Your task to perform on an android device: Search for usb-a on amazon.com, select the first entry, add it to the cart, then select checkout. Image 0: 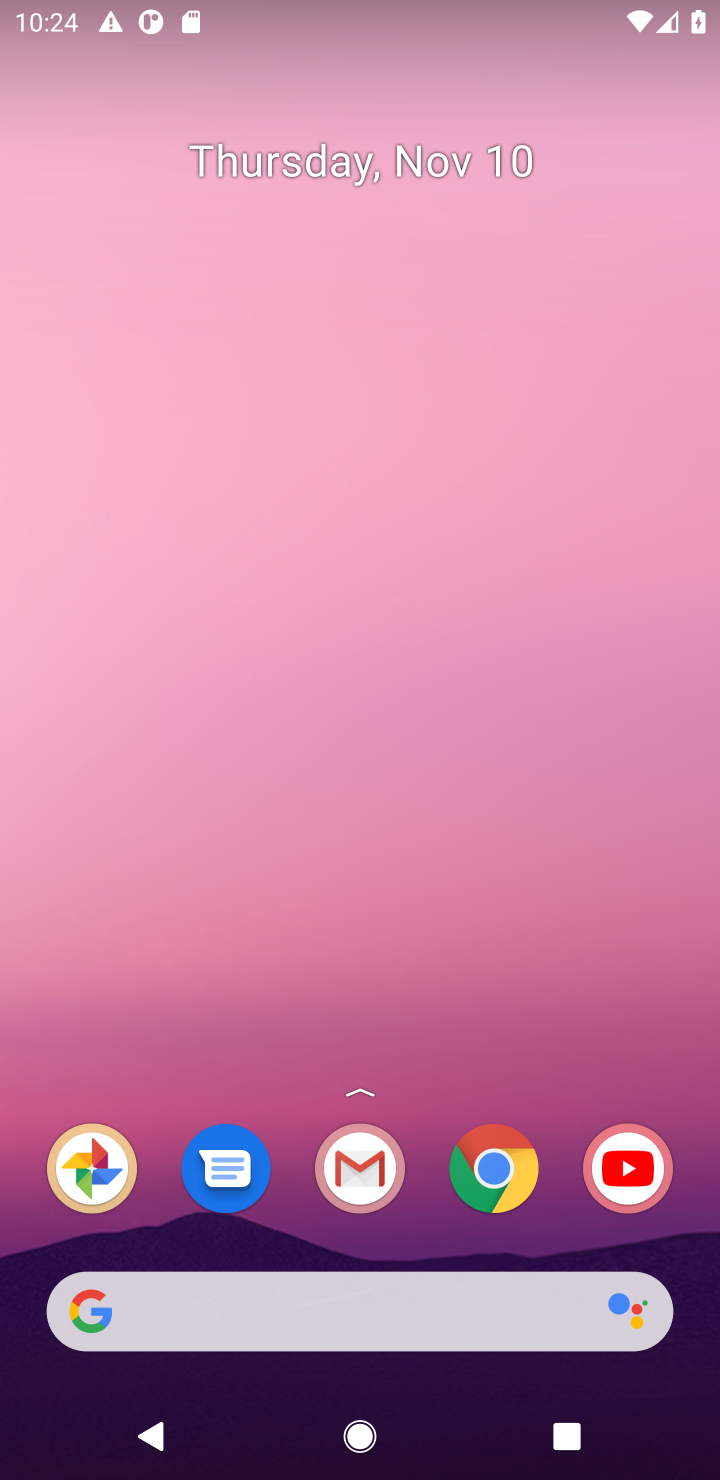
Step 0: click (482, 1191)
Your task to perform on an android device: Search for usb-a on amazon.com, select the first entry, add it to the cart, then select checkout. Image 1: 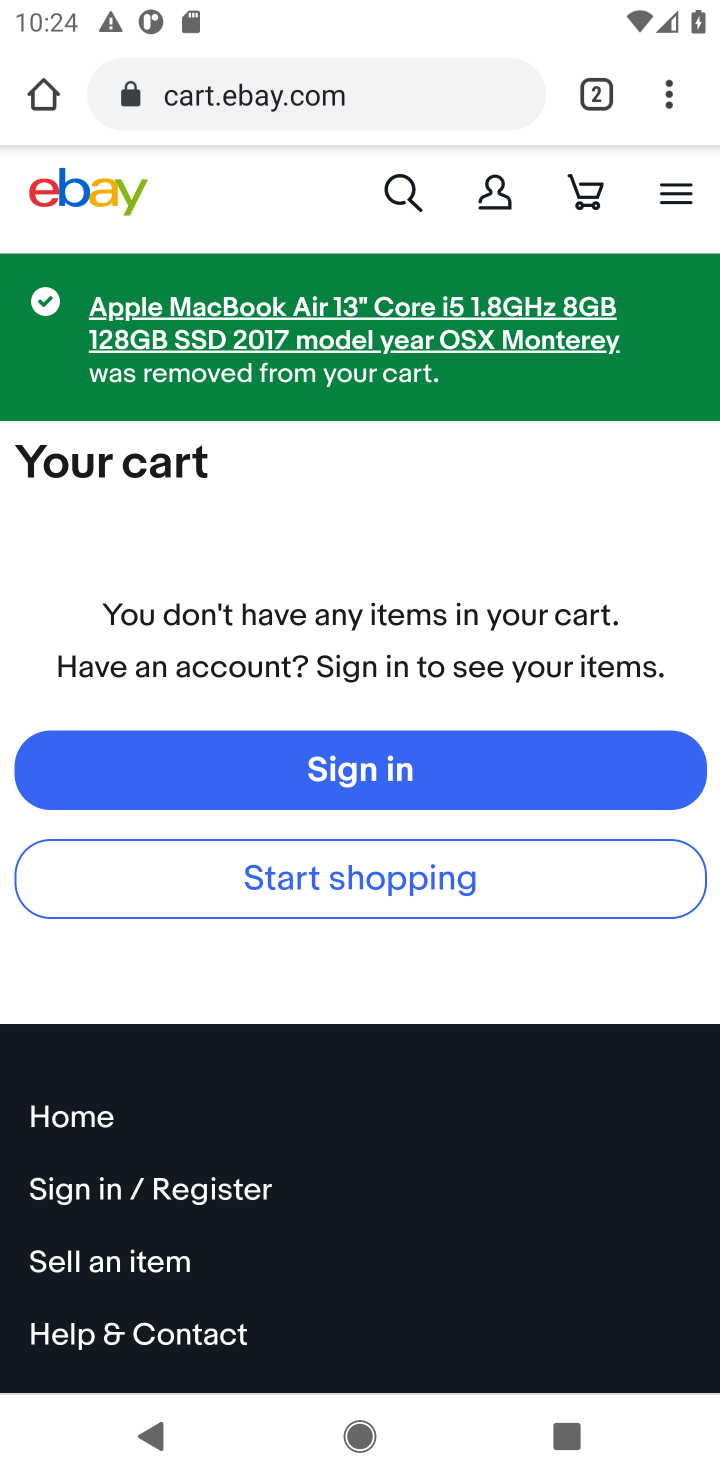
Step 1: click (316, 120)
Your task to perform on an android device: Search for usb-a on amazon.com, select the first entry, add it to the cart, then select checkout. Image 2: 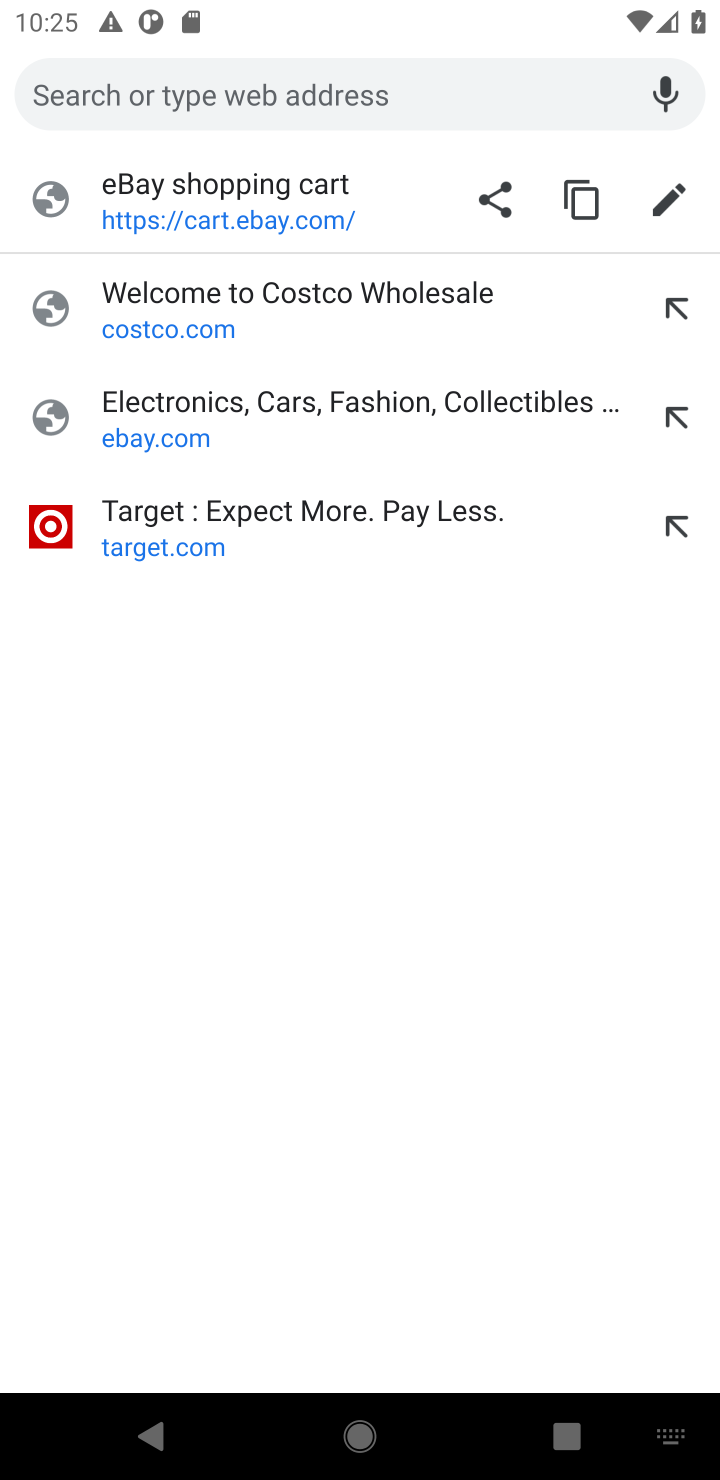
Step 2: type "amazon.com"
Your task to perform on an android device: Search for usb-a on amazon.com, select the first entry, add it to the cart, then select checkout. Image 3: 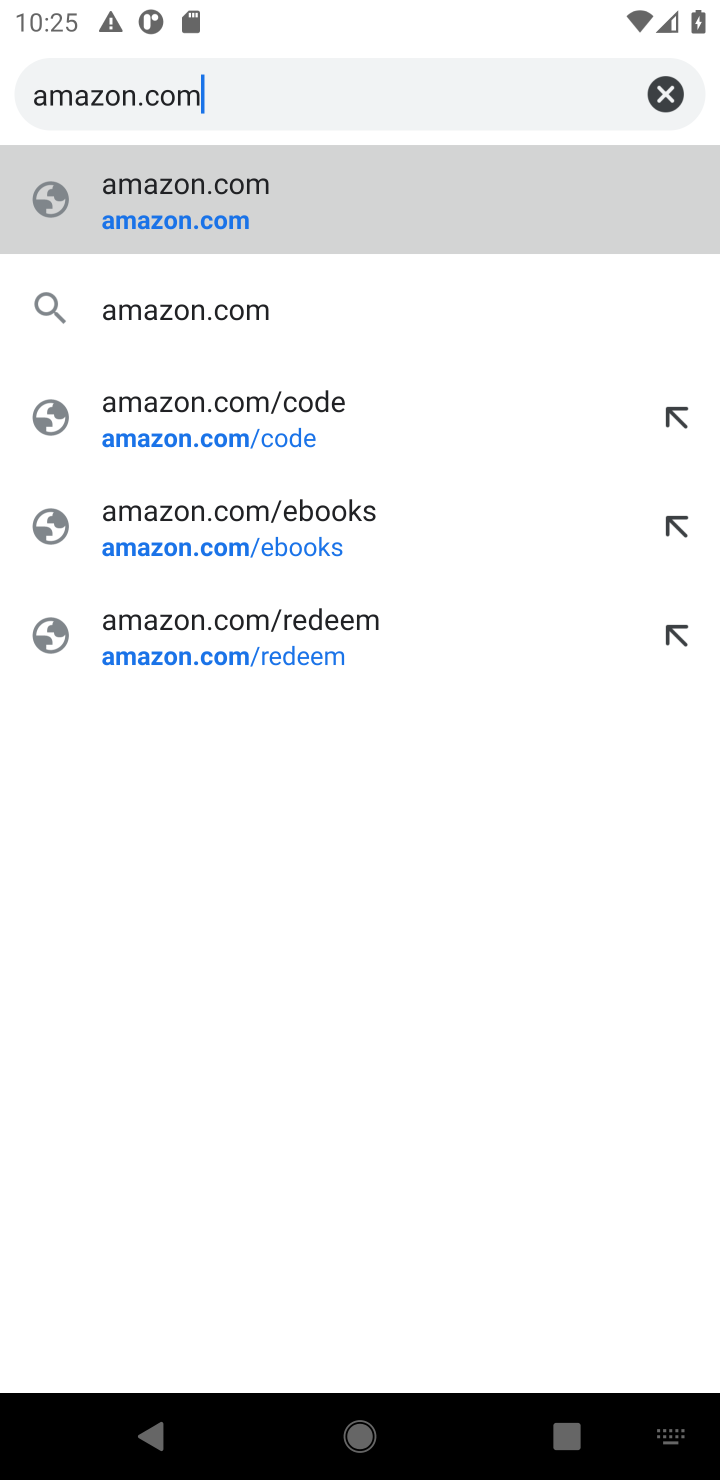
Step 3: click (150, 301)
Your task to perform on an android device: Search for usb-a on amazon.com, select the first entry, add it to the cart, then select checkout. Image 4: 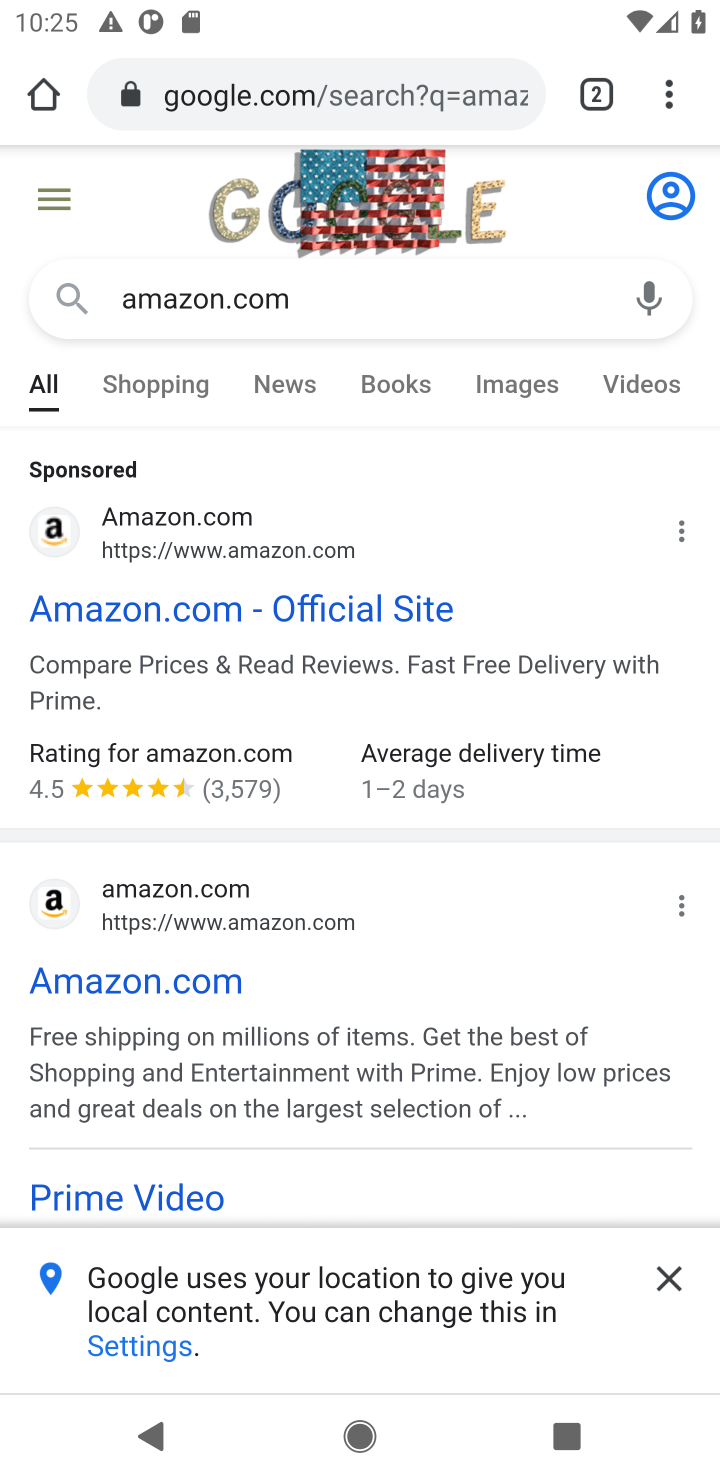
Step 4: drag from (235, 855) to (237, 505)
Your task to perform on an android device: Search for usb-a on amazon.com, select the first entry, add it to the cart, then select checkout. Image 5: 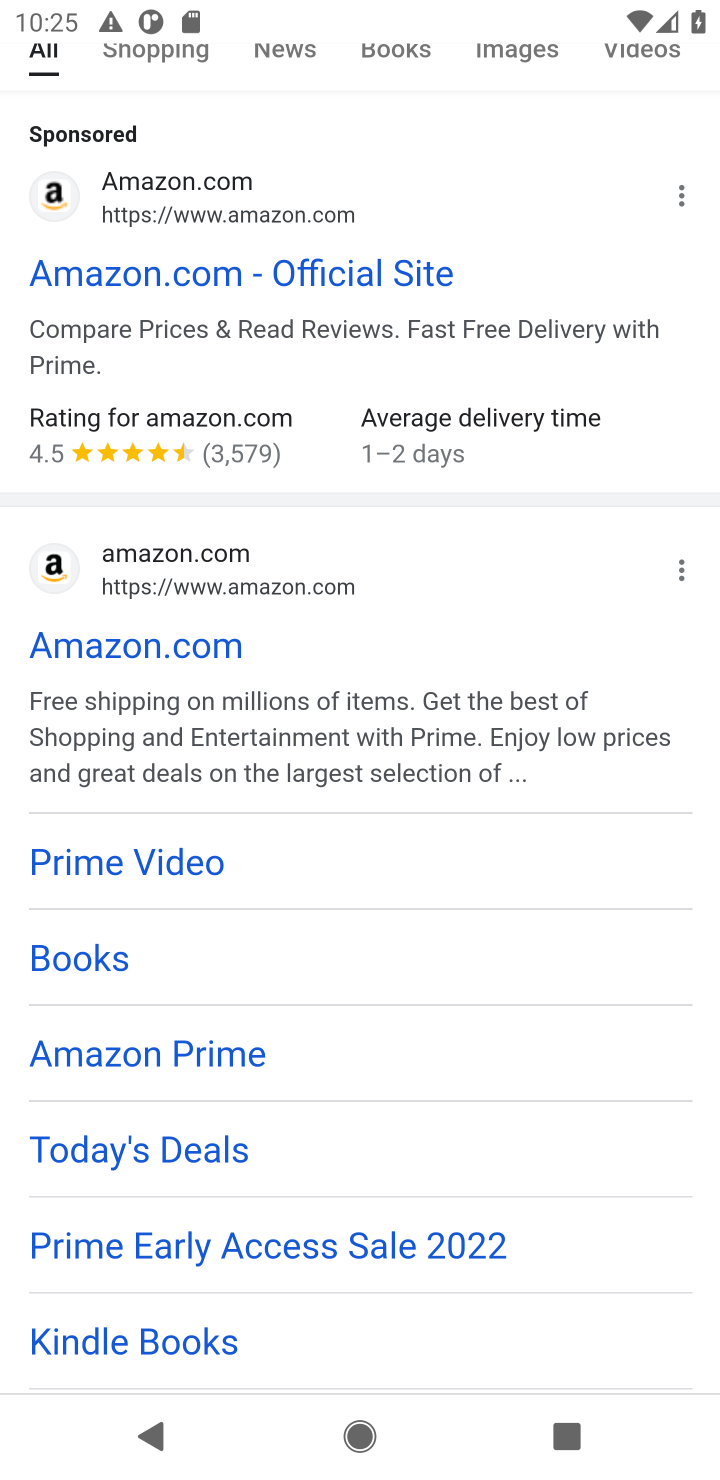
Step 5: click (135, 658)
Your task to perform on an android device: Search for usb-a on amazon.com, select the first entry, add it to the cart, then select checkout. Image 6: 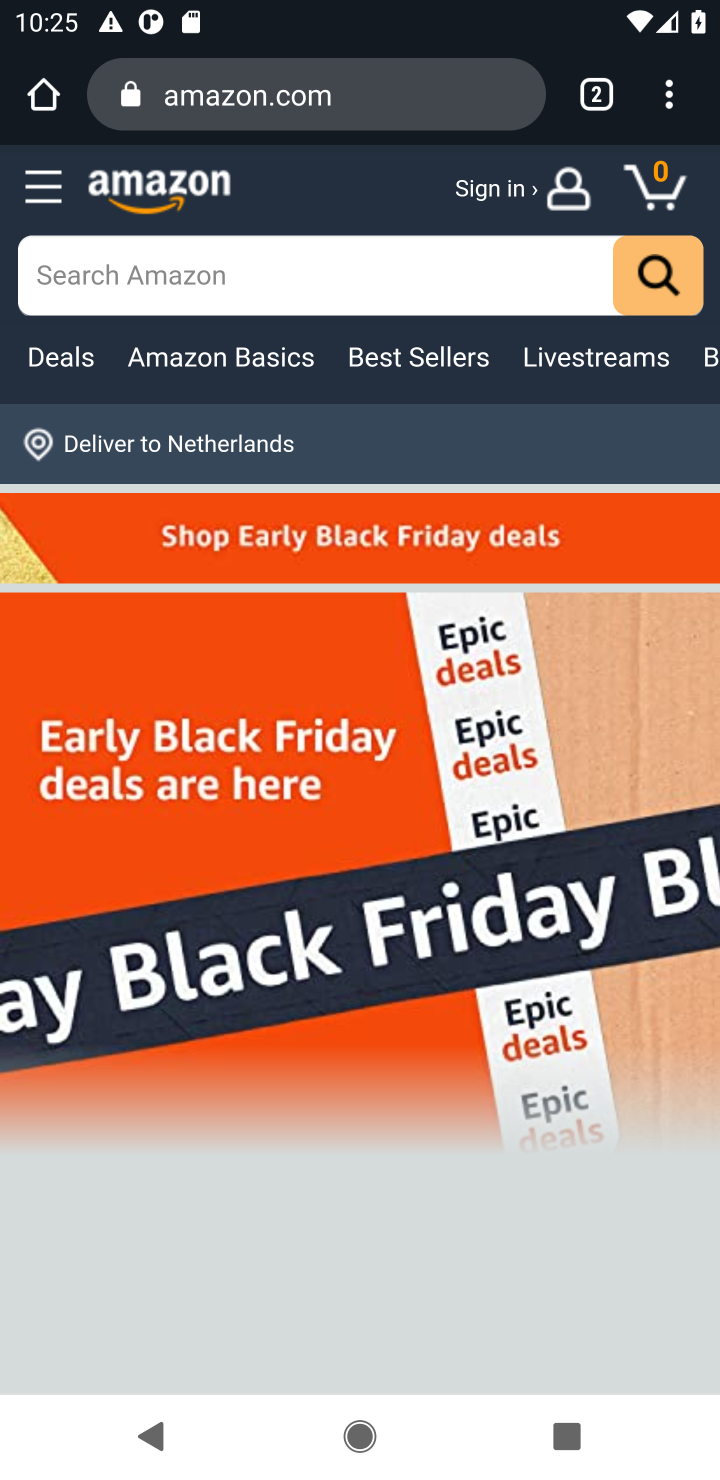
Step 6: click (249, 298)
Your task to perform on an android device: Search for usb-a on amazon.com, select the first entry, add it to the cart, then select checkout. Image 7: 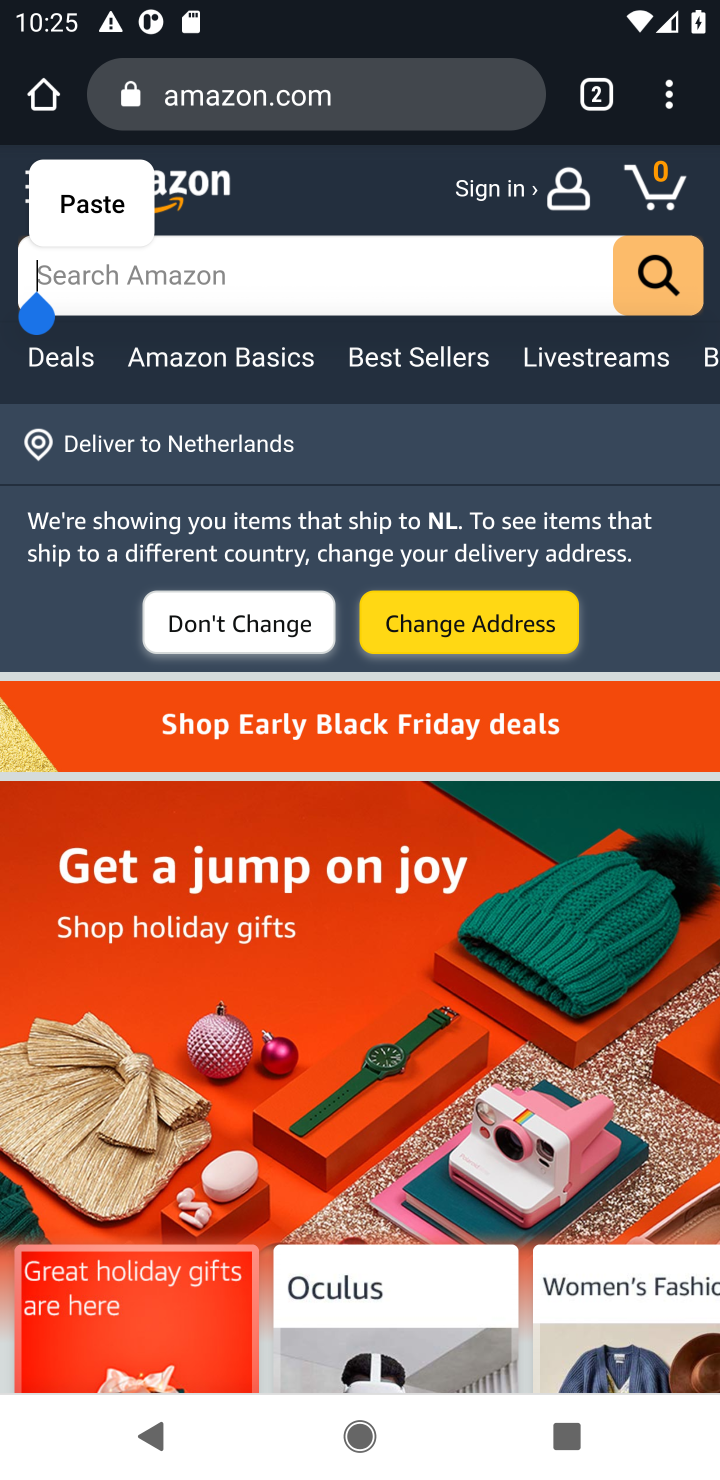
Step 7: type "usb-a "
Your task to perform on an android device: Search for usb-a on amazon.com, select the first entry, add it to the cart, then select checkout. Image 8: 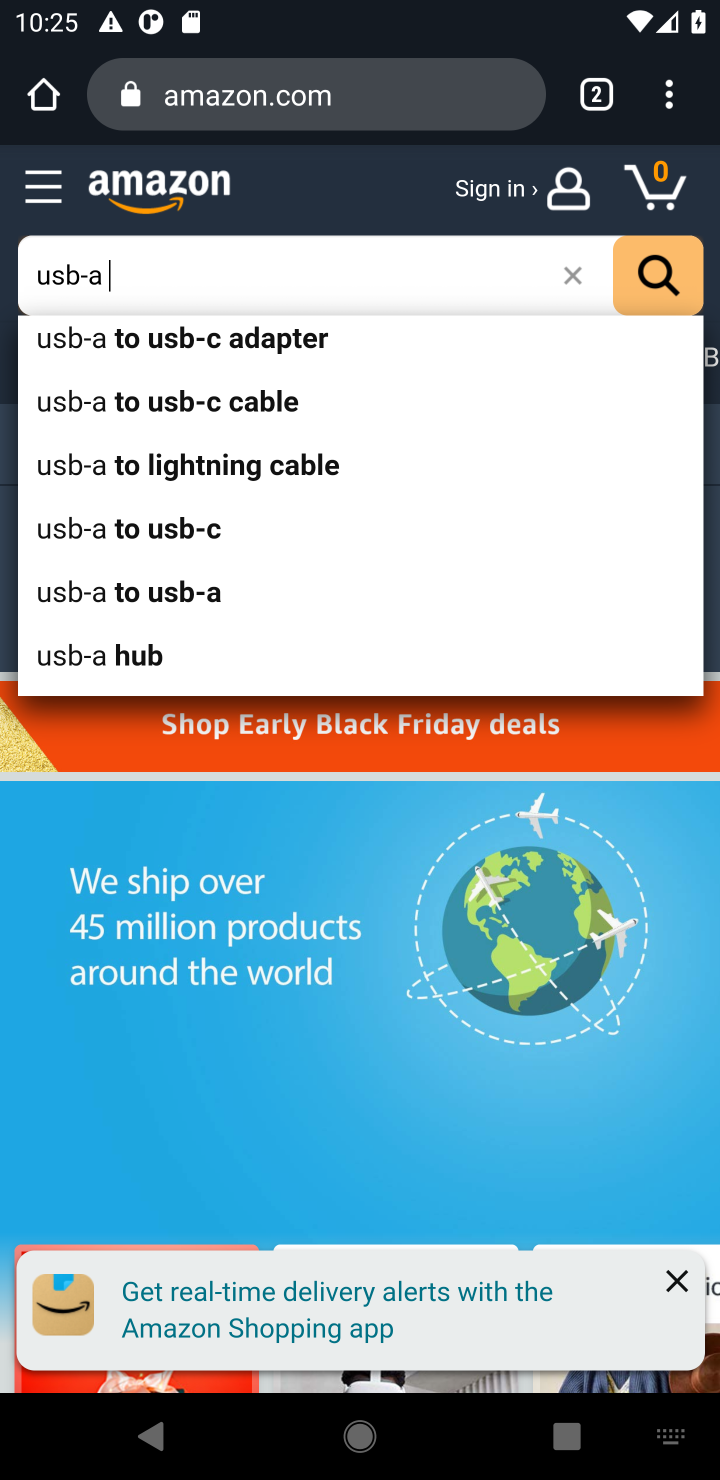
Step 8: click (676, 272)
Your task to perform on an android device: Search for usb-a on amazon.com, select the first entry, add it to the cart, then select checkout. Image 9: 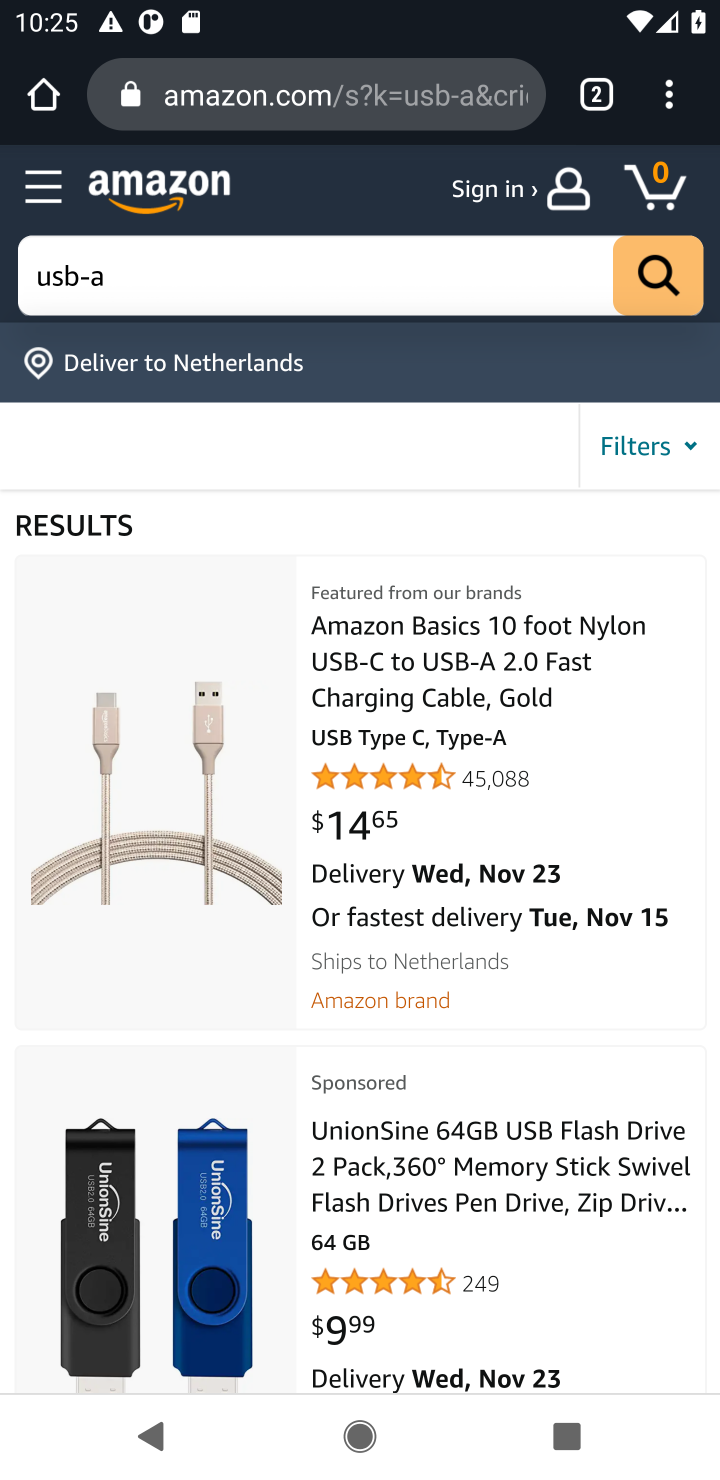
Step 9: click (112, 780)
Your task to perform on an android device: Search for usb-a on amazon.com, select the first entry, add it to the cart, then select checkout. Image 10: 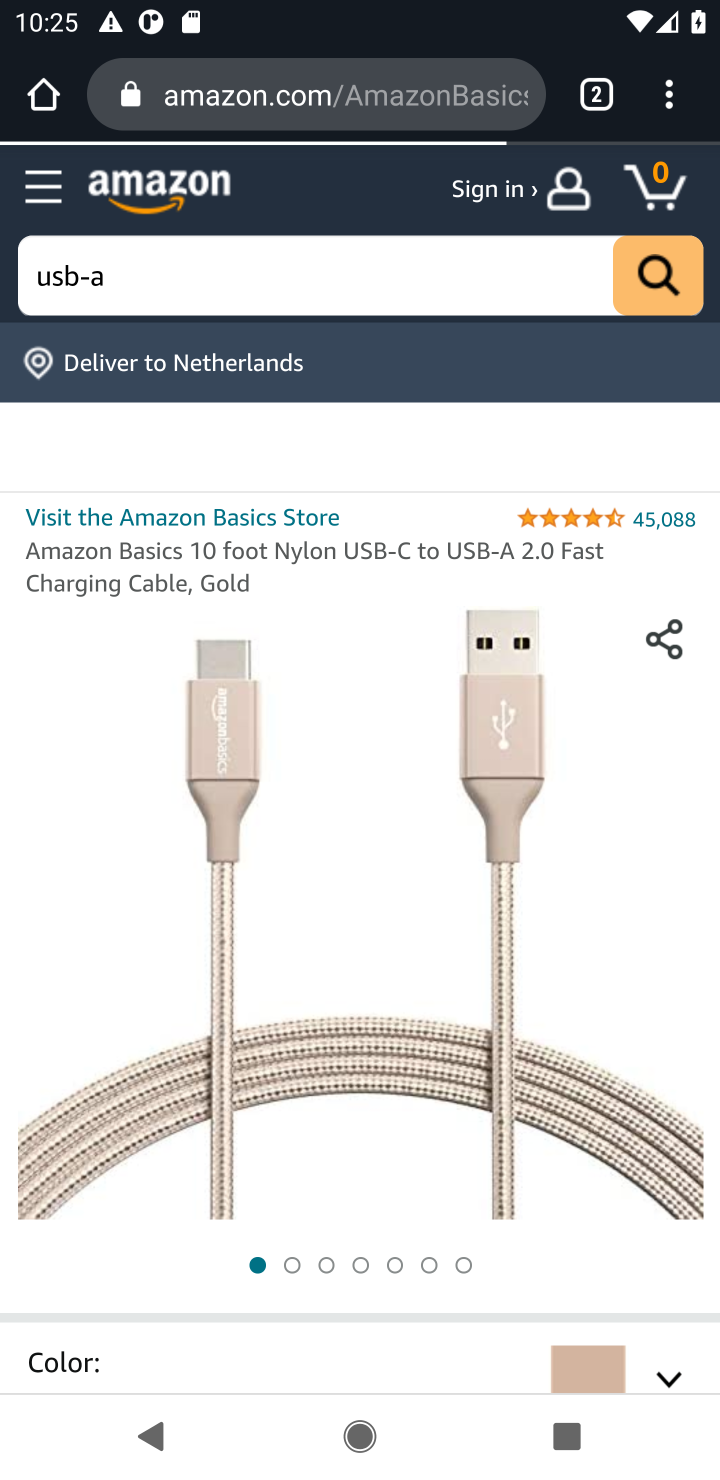
Step 10: drag from (338, 861) to (343, 398)
Your task to perform on an android device: Search for usb-a on amazon.com, select the first entry, add it to the cart, then select checkout. Image 11: 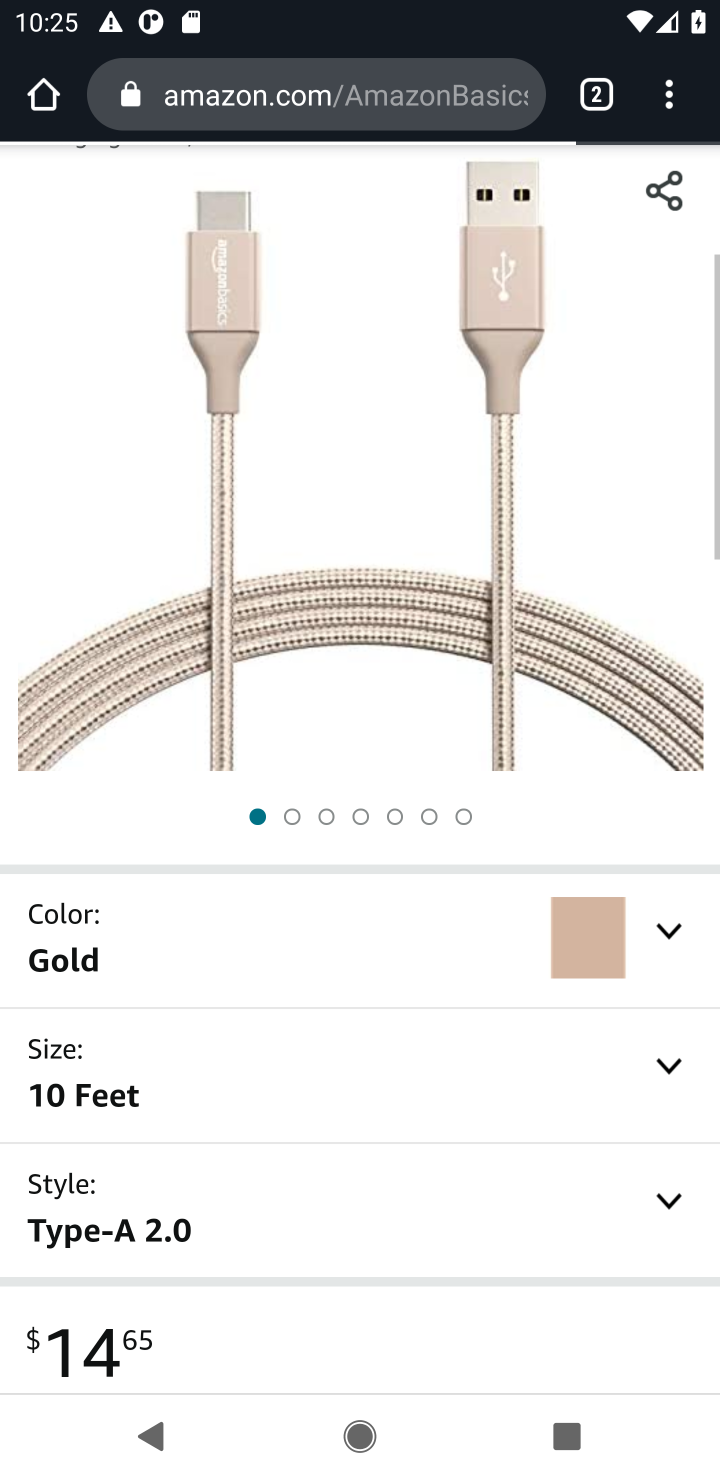
Step 11: drag from (386, 996) to (348, 387)
Your task to perform on an android device: Search for usb-a on amazon.com, select the first entry, add it to the cart, then select checkout. Image 12: 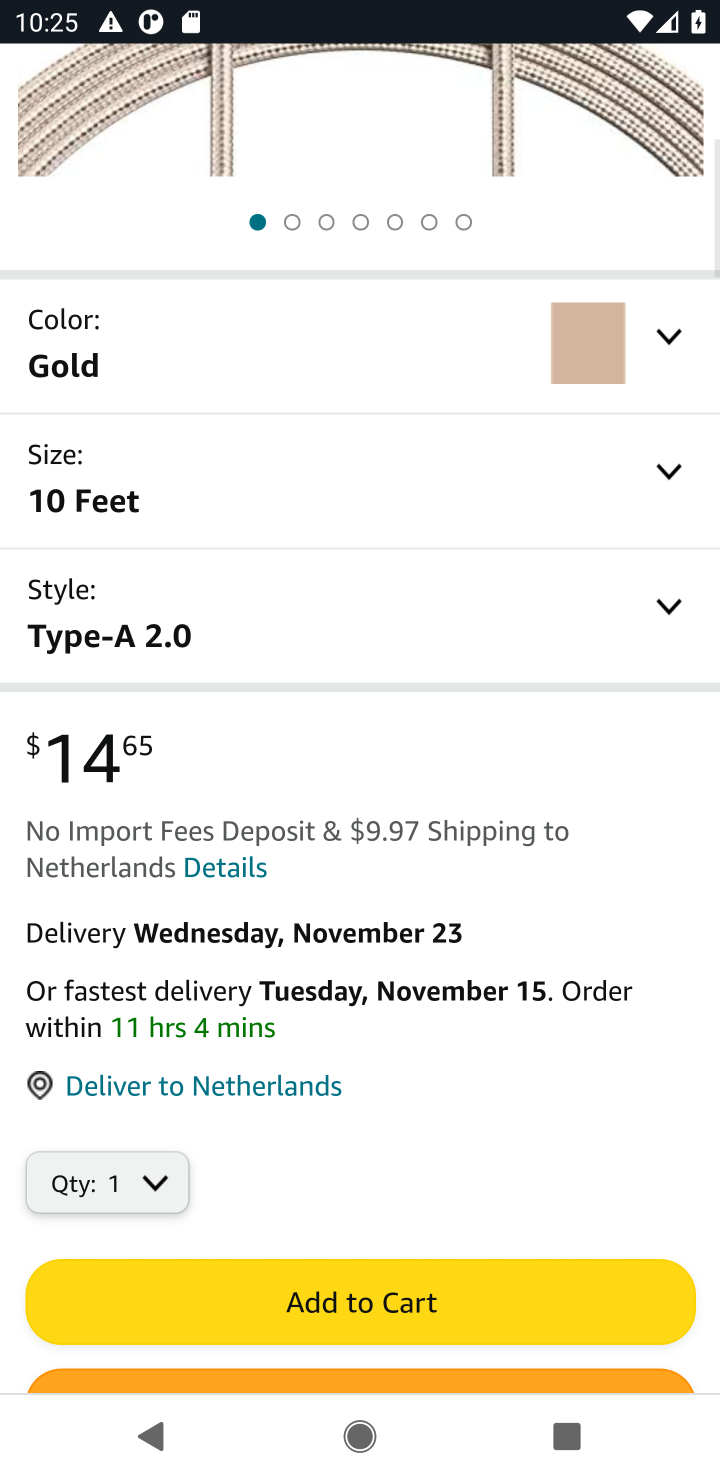
Step 12: drag from (373, 1024) to (283, 506)
Your task to perform on an android device: Search for usb-a on amazon.com, select the first entry, add it to the cart, then select checkout. Image 13: 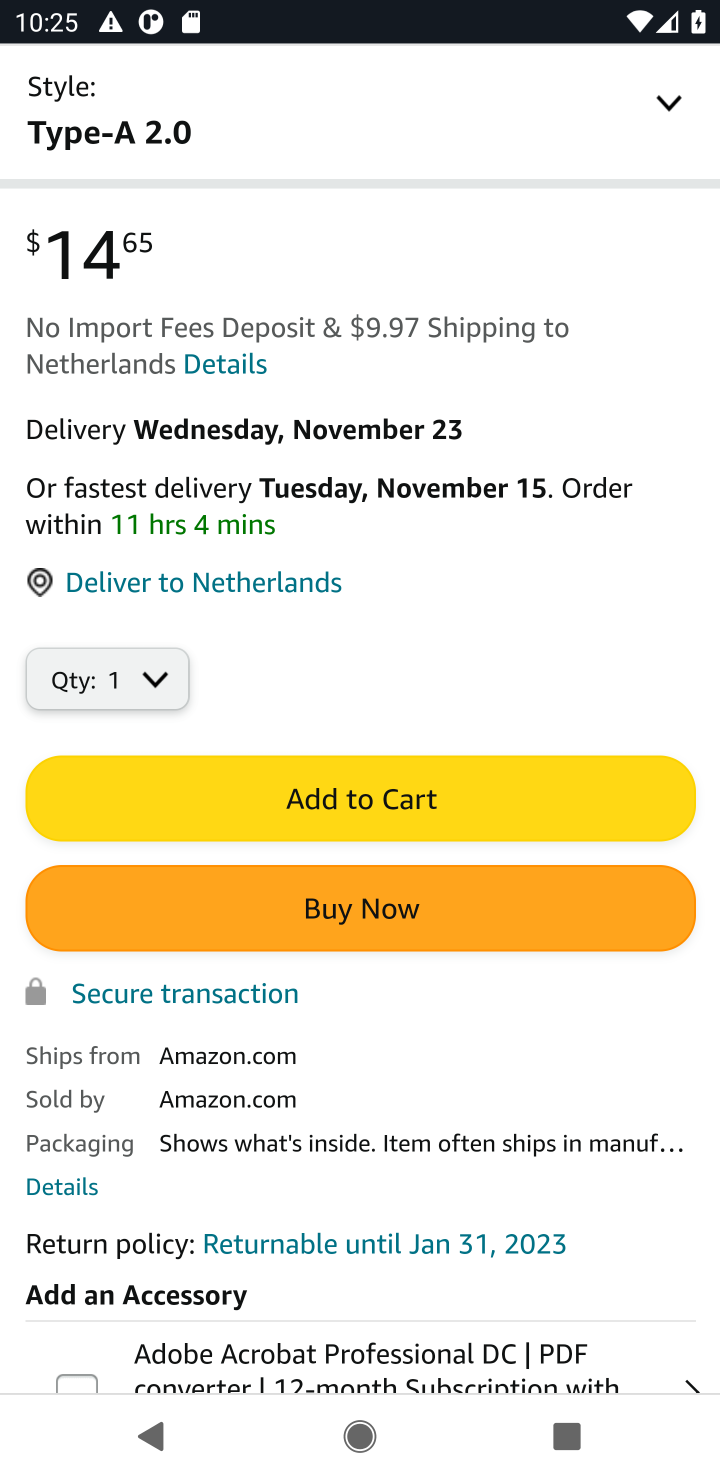
Step 13: click (346, 816)
Your task to perform on an android device: Search for usb-a on amazon.com, select the first entry, add it to the cart, then select checkout. Image 14: 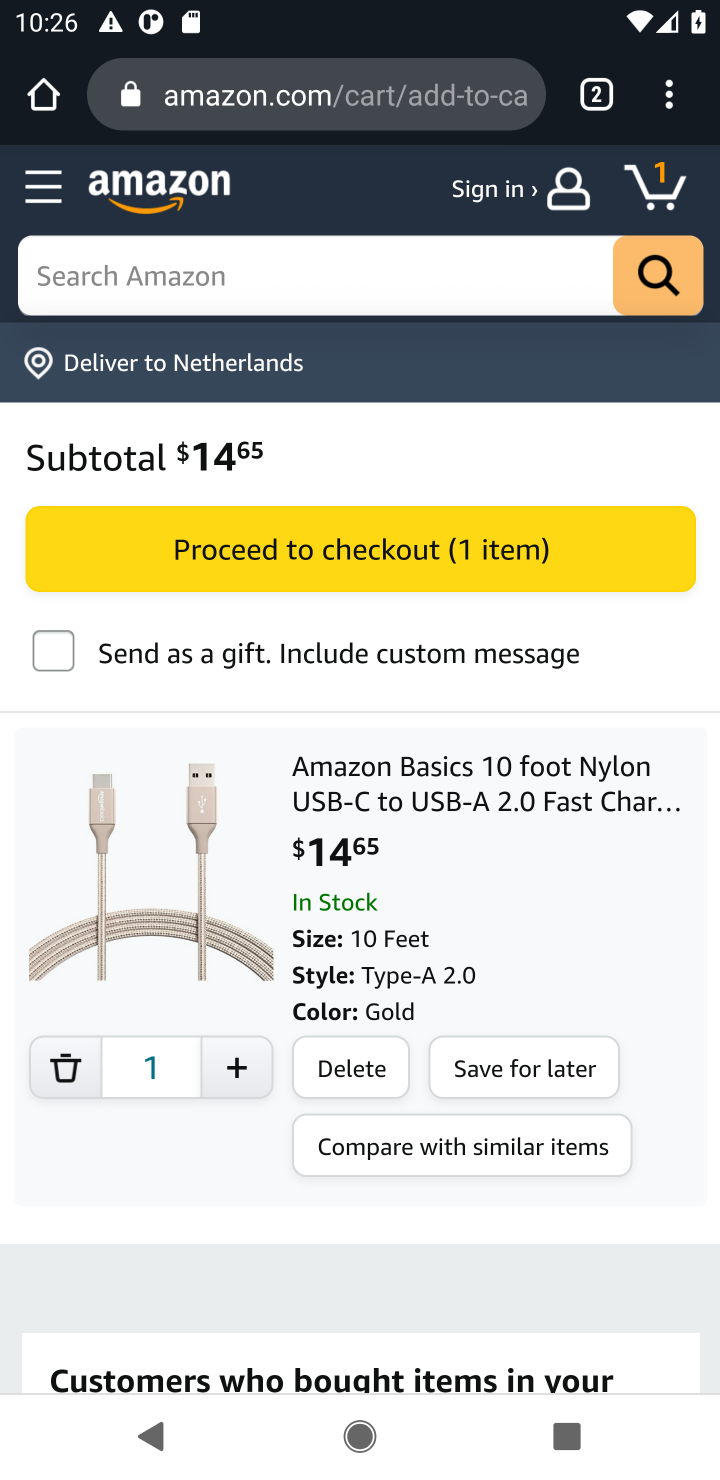
Step 14: click (418, 558)
Your task to perform on an android device: Search for usb-a on amazon.com, select the first entry, add it to the cart, then select checkout. Image 15: 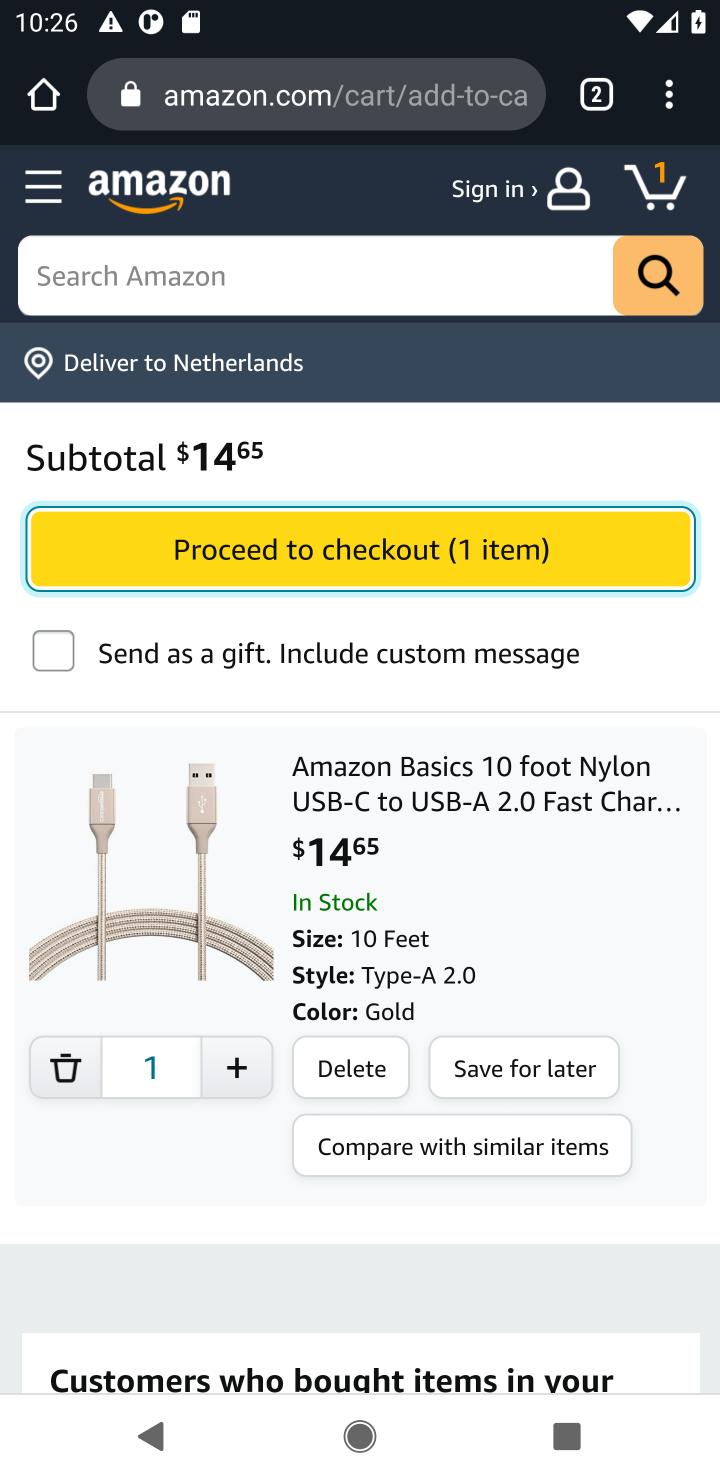
Step 15: click (355, 559)
Your task to perform on an android device: Search for usb-a on amazon.com, select the first entry, add it to the cart, then select checkout. Image 16: 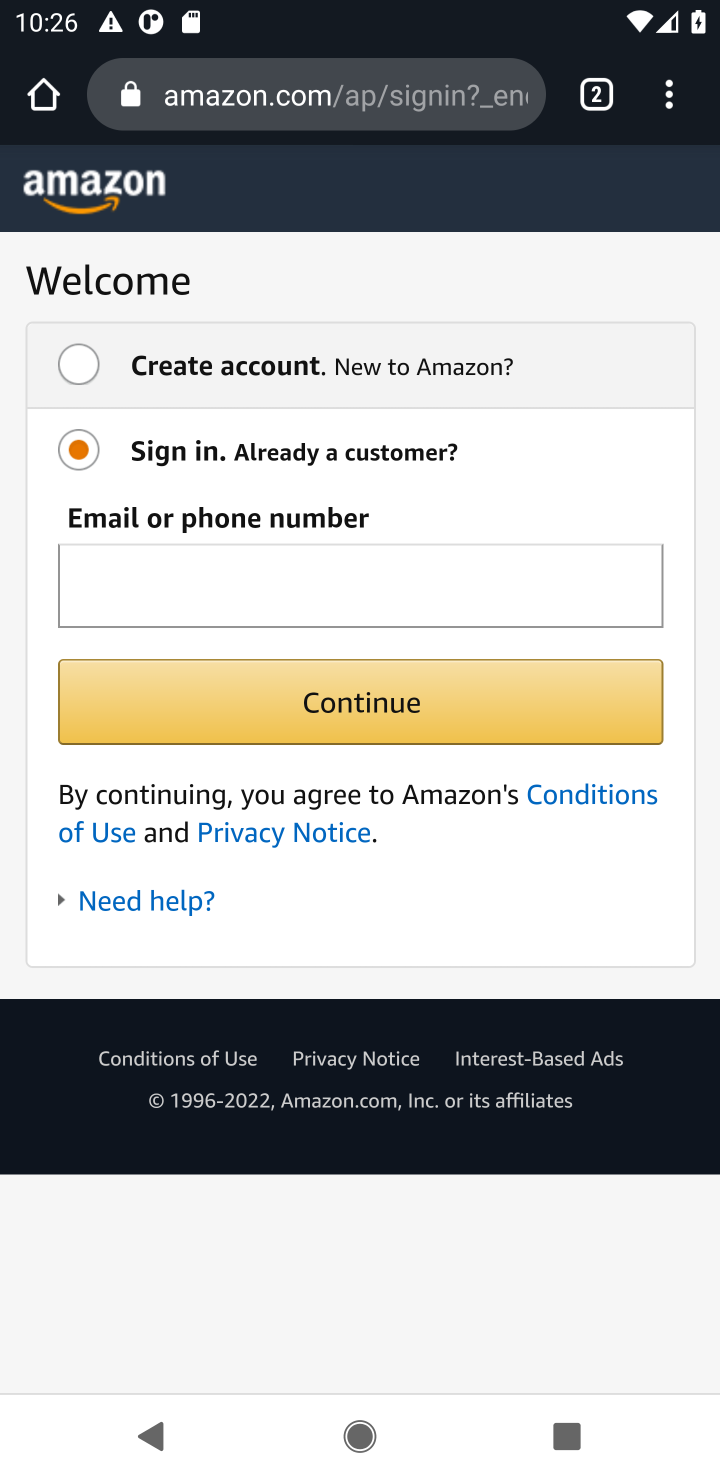
Step 16: task complete